Your task to perform on an android device: find snoozed emails in the gmail app Image 0: 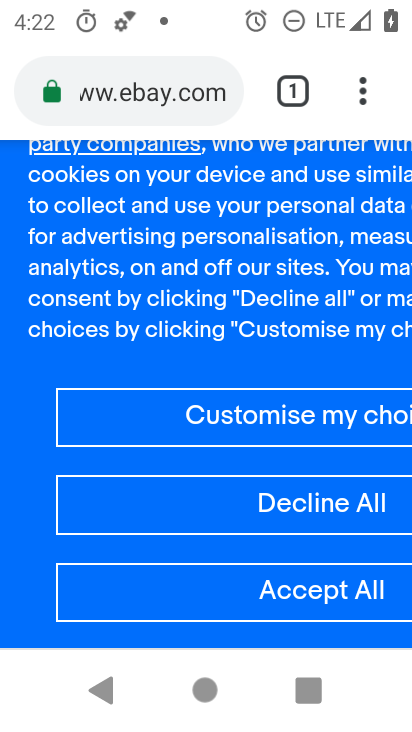
Step 0: press home button
Your task to perform on an android device: find snoozed emails in the gmail app Image 1: 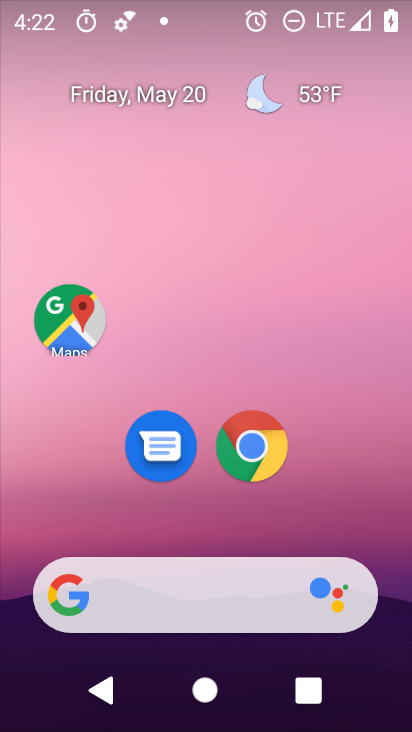
Step 1: drag from (336, 515) to (340, 115)
Your task to perform on an android device: find snoozed emails in the gmail app Image 2: 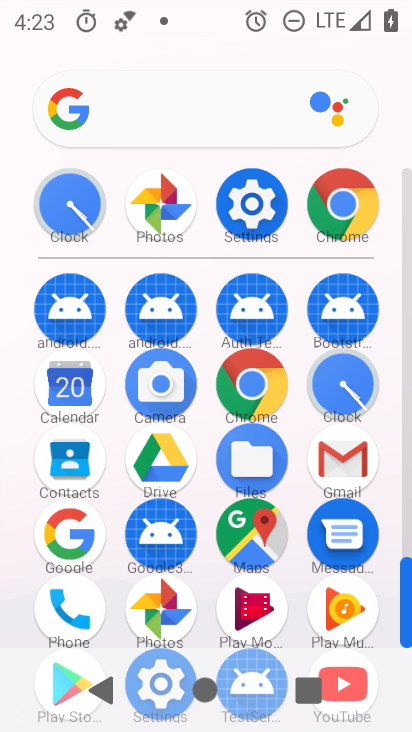
Step 2: click (351, 440)
Your task to perform on an android device: find snoozed emails in the gmail app Image 3: 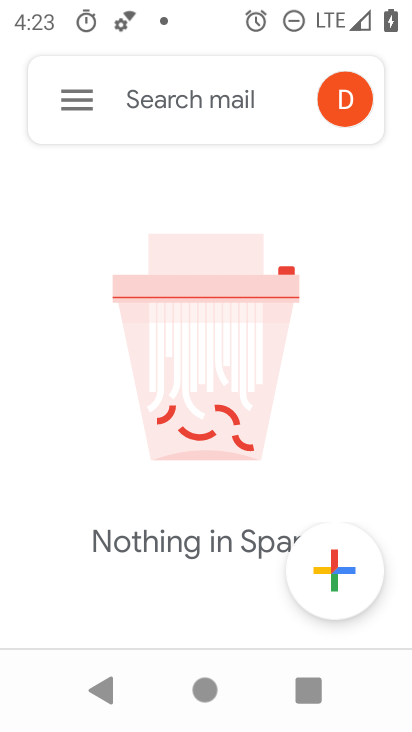
Step 3: click (78, 113)
Your task to perform on an android device: find snoozed emails in the gmail app Image 4: 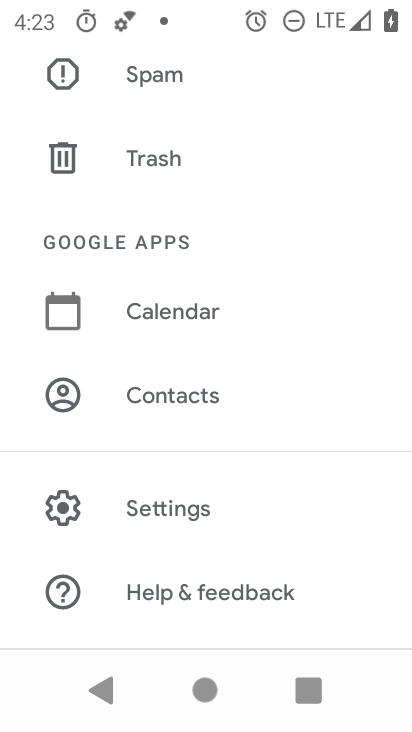
Step 4: drag from (220, 552) to (308, 140)
Your task to perform on an android device: find snoozed emails in the gmail app Image 5: 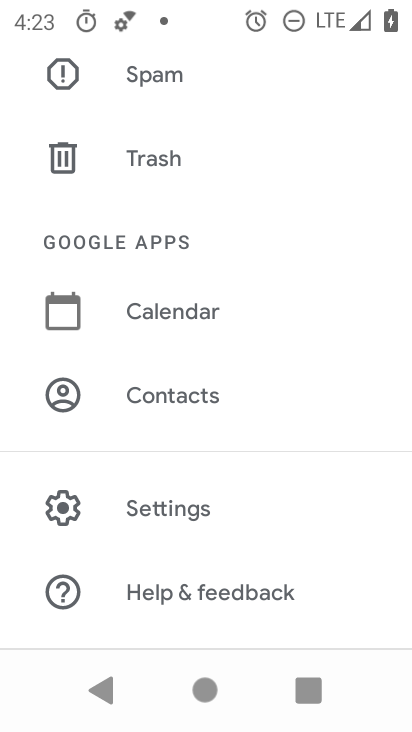
Step 5: drag from (247, 277) to (221, 652)
Your task to perform on an android device: find snoozed emails in the gmail app Image 6: 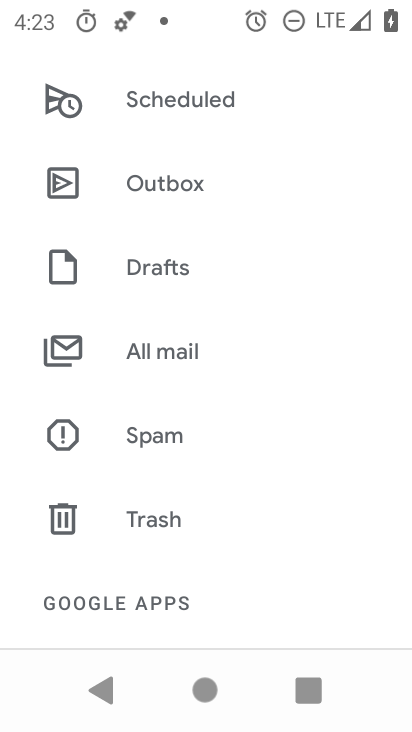
Step 6: drag from (239, 202) to (238, 598)
Your task to perform on an android device: find snoozed emails in the gmail app Image 7: 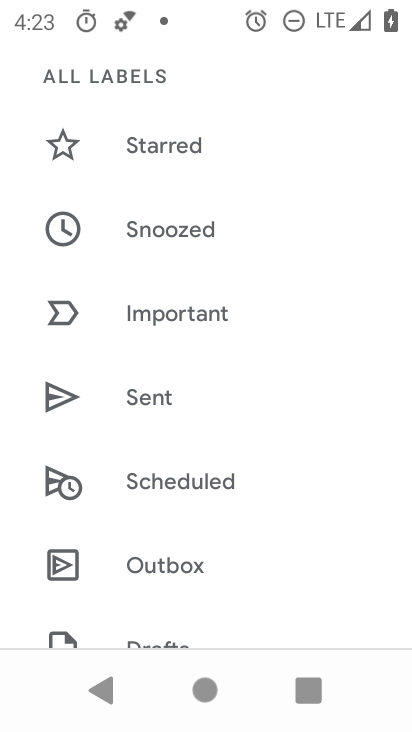
Step 7: drag from (237, 543) to (311, 177)
Your task to perform on an android device: find snoozed emails in the gmail app Image 8: 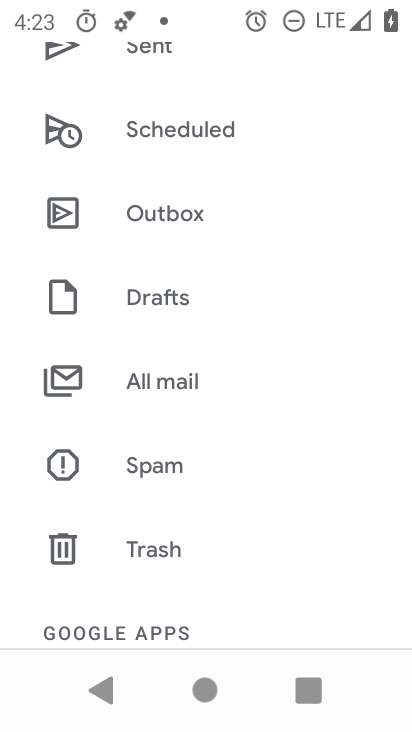
Step 8: click (172, 386)
Your task to perform on an android device: find snoozed emails in the gmail app Image 9: 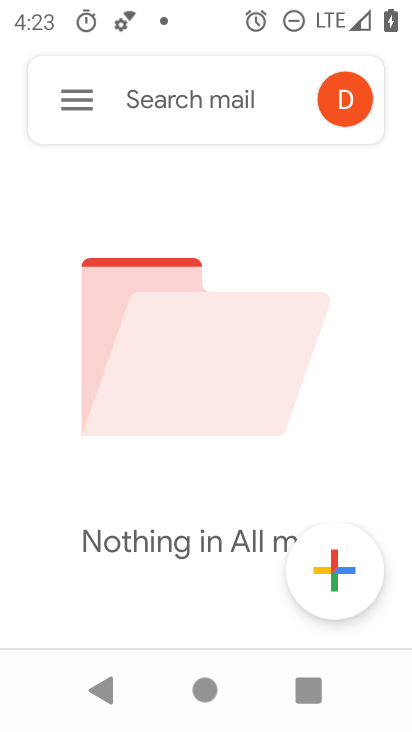
Step 9: task complete